Your task to perform on an android device: change the clock display to show seconds Image 0: 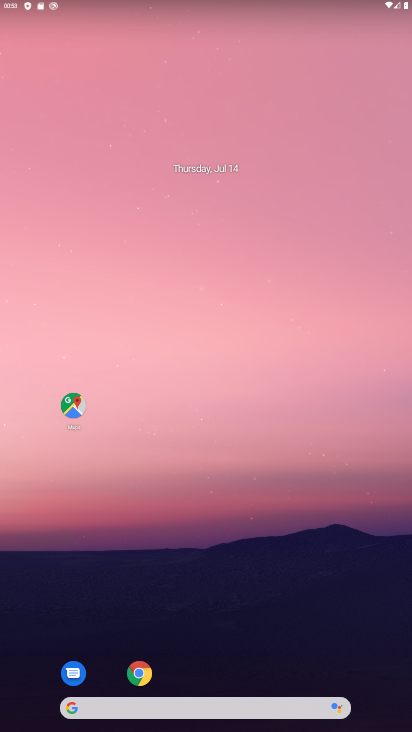
Step 0: drag from (243, 678) to (224, 206)
Your task to perform on an android device: change the clock display to show seconds Image 1: 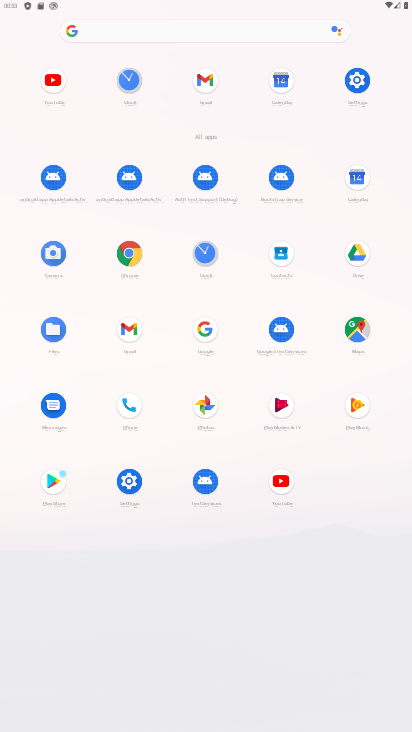
Step 1: click (136, 92)
Your task to perform on an android device: change the clock display to show seconds Image 2: 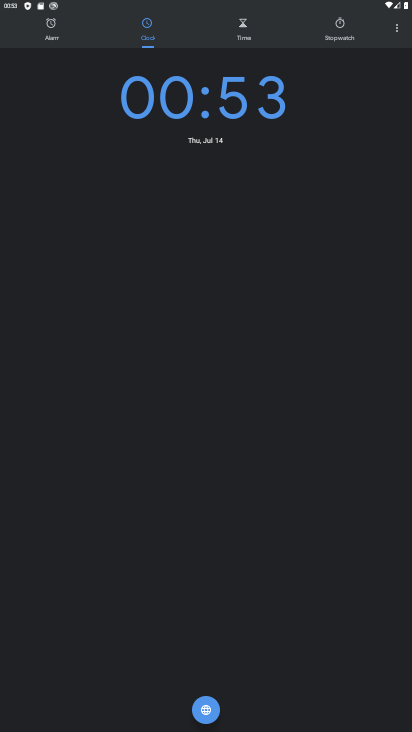
Step 2: click (391, 29)
Your task to perform on an android device: change the clock display to show seconds Image 3: 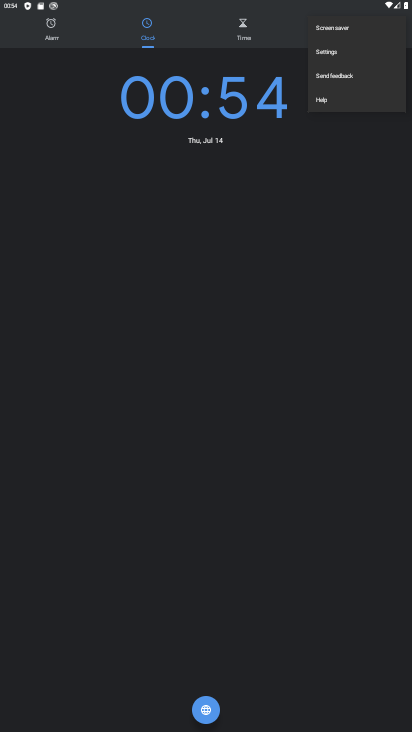
Step 3: click (353, 48)
Your task to perform on an android device: change the clock display to show seconds Image 4: 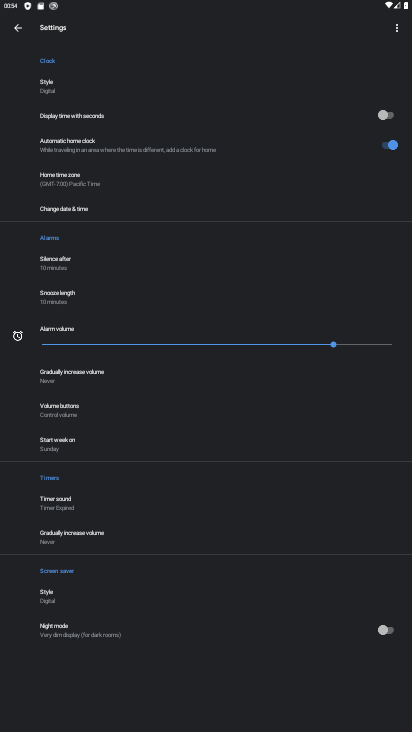
Step 4: click (376, 114)
Your task to perform on an android device: change the clock display to show seconds Image 5: 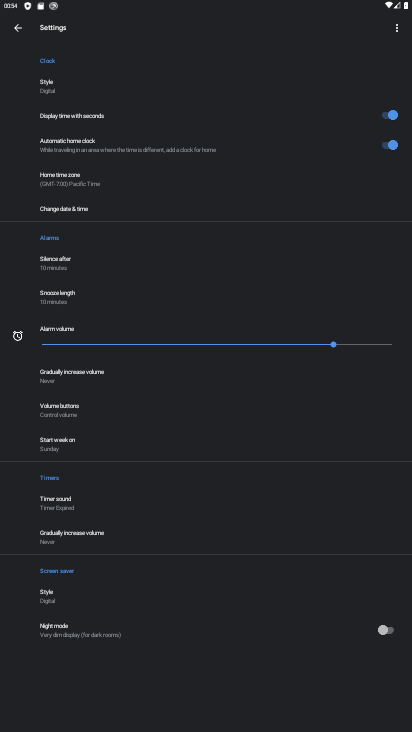
Step 5: task complete